Your task to perform on an android device: open sync settings in chrome Image 0: 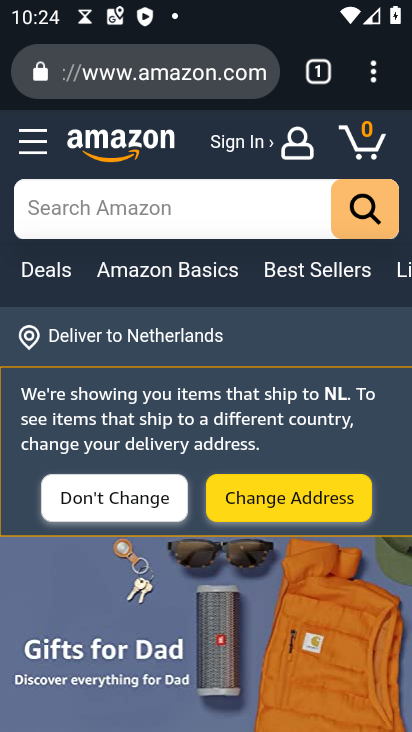
Step 0: click (379, 71)
Your task to perform on an android device: open sync settings in chrome Image 1: 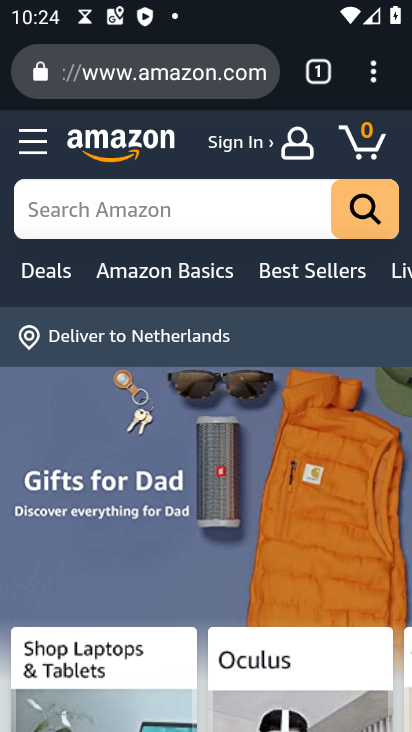
Step 1: click (379, 71)
Your task to perform on an android device: open sync settings in chrome Image 2: 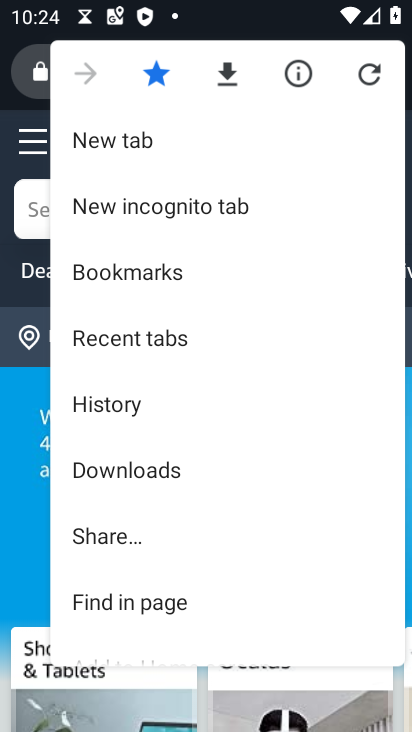
Step 2: drag from (199, 402) to (221, 324)
Your task to perform on an android device: open sync settings in chrome Image 3: 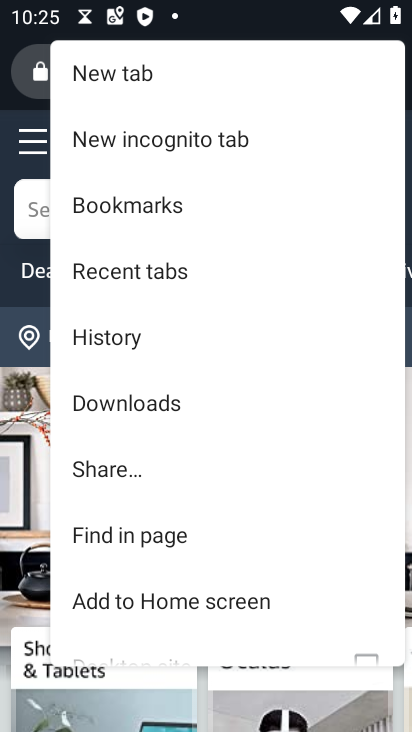
Step 3: drag from (188, 462) to (230, 398)
Your task to perform on an android device: open sync settings in chrome Image 4: 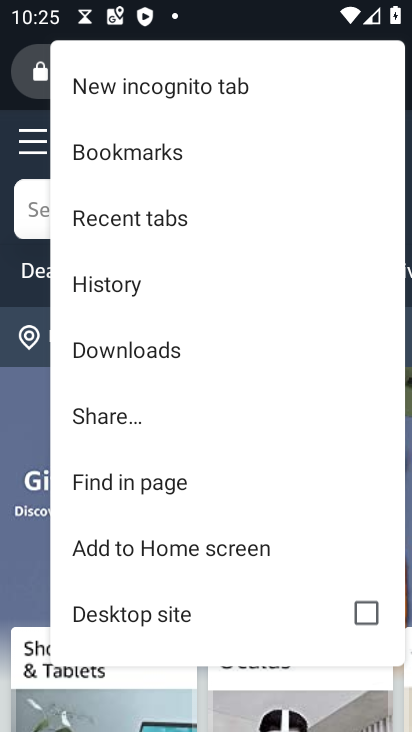
Step 4: drag from (197, 515) to (225, 407)
Your task to perform on an android device: open sync settings in chrome Image 5: 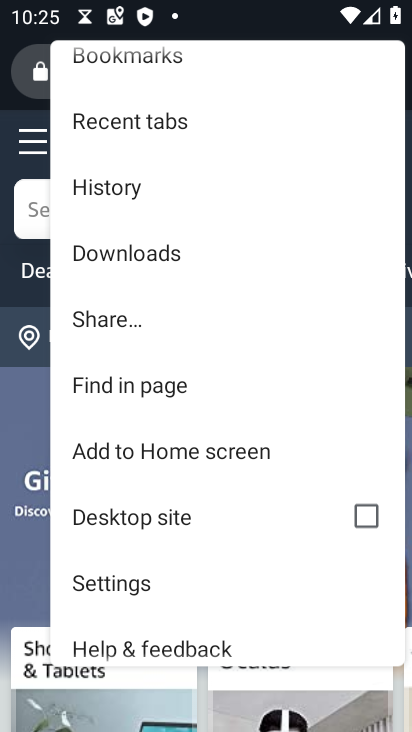
Step 5: drag from (191, 546) to (215, 424)
Your task to perform on an android device: open sync settings in chrome Image 6: 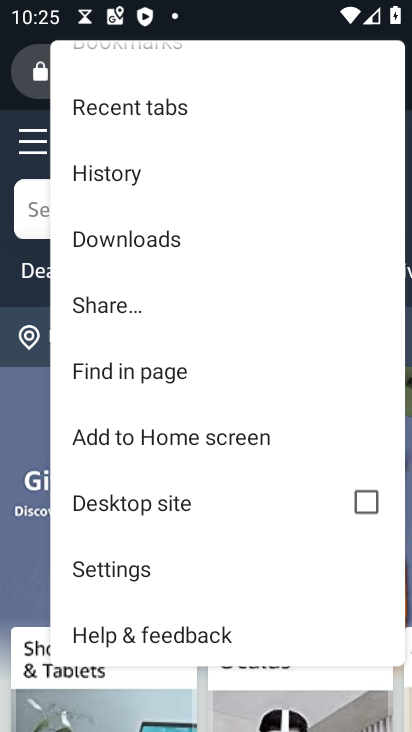
Step 6: click (118, 568)
Your task to perform on an android device: open sync settings in chrome Image 7: 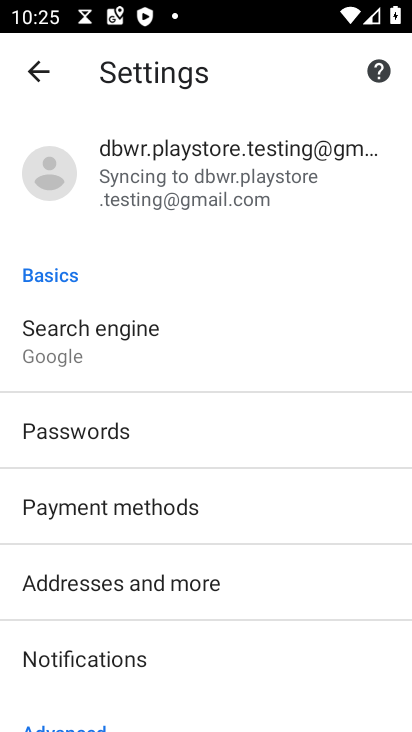
Step 7: drag from (221, 505) to (226, 407)
Your task to perform on an android device: open sync settings in chrome Image 8: 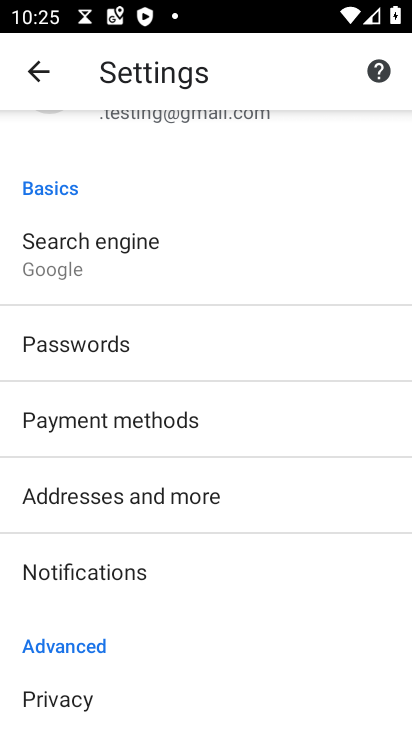
Step 8: drag from (186, 550) to (236, 447)
Your task to perform on an android device: open sync settings in chrome Image 9: 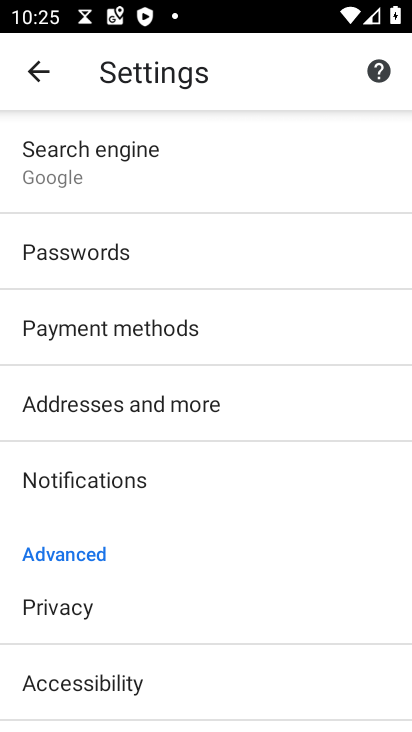
Step 9: drag from (139, 604) to (219, 442)
Your task to perform on an android device: open sync settings in chrome Image 10: 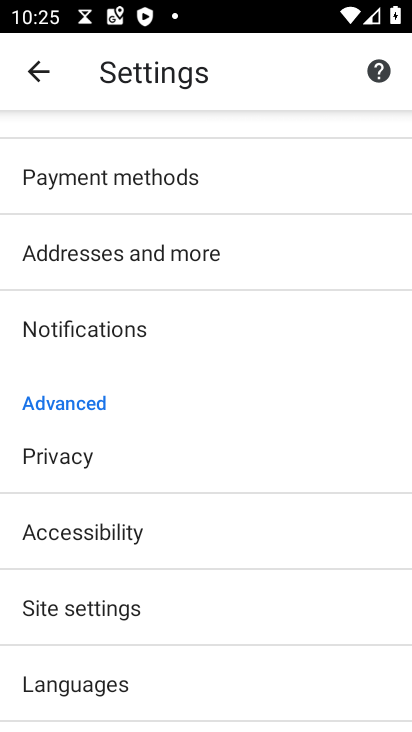
Step 10: drag from (180, 601) to (240, 503)
Your task to perform on an android device: open sync settings in chrome Image 11: 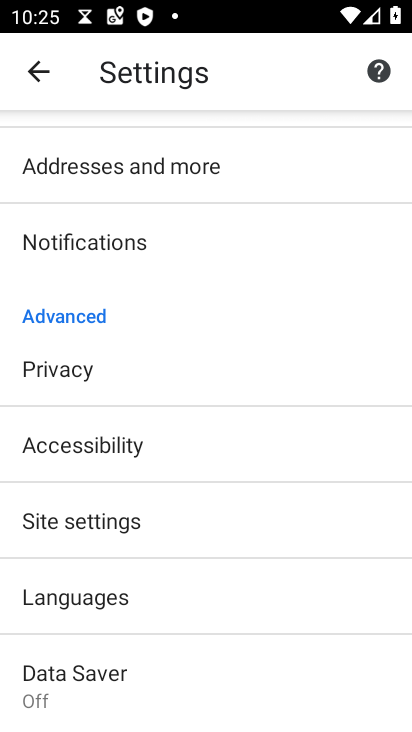
Step 11: drag from (220, 606) to (268, 507)
Your task to perform on an android device: open sync settings in chrome Image 12: 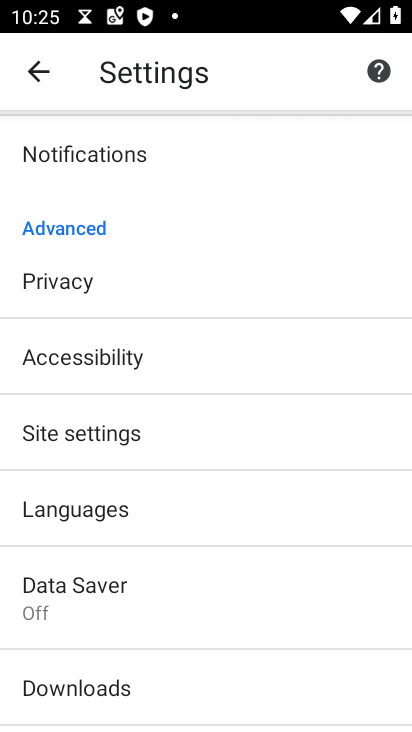
Step 12: drag from (194, 603) to (262, 503)
Your task to perform on an android device: open sync settings in chrome Image 13: 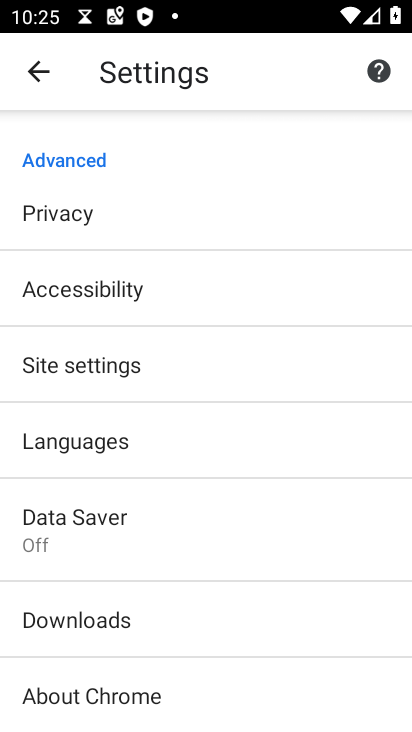
Step 13: click (124, 367)
Your task to perform on an android device: open sync settings in chrome Image 14: 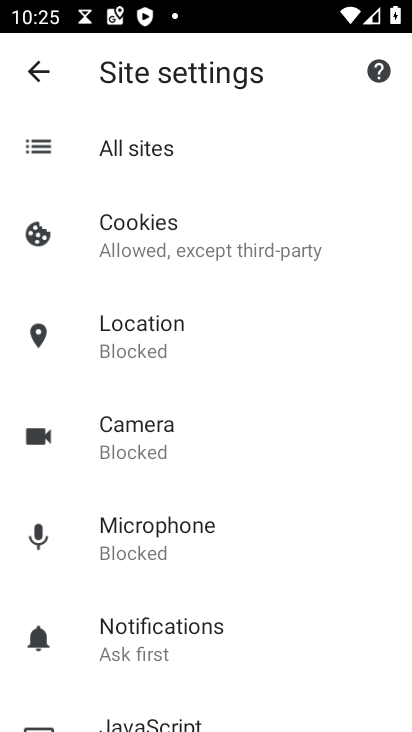
Step 14: drag from (183, 477) to (232, 376)
Your task to perform on an android device: open sync settings in chrome Image 15: 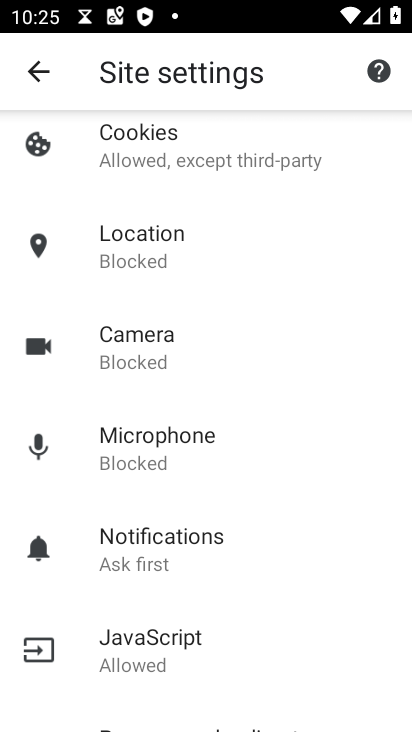
Step 15: drag from (187, 493) to (238, 393)
Your task to perform on an android device: open sync settings in chrome Image 16: 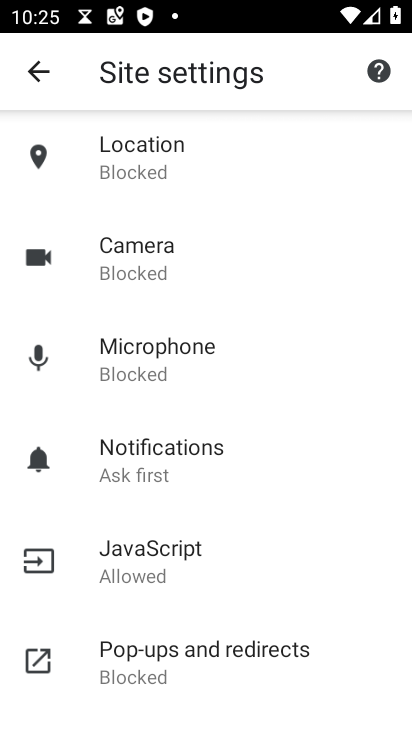
Step 16: drag from (192, 496) to (259, 364)
Your task to perform on an android device: open sync settings in chrome Image 17: 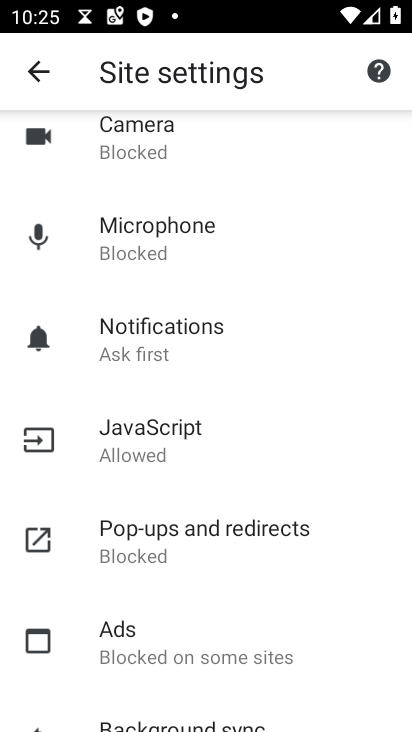
Step 17: drag from (175, 590) to (265, 441)
Your task to perform on an android device: open sync settings in chrome Image 18: 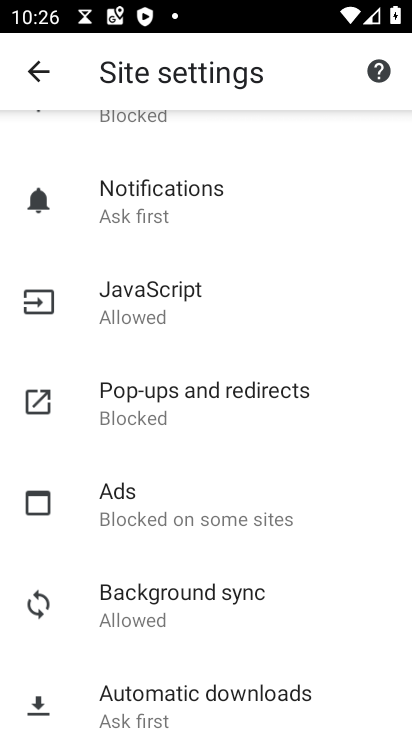
Step 18: click (251, 591)
Your task to perform on an android device: open sync settings in chrome Image 19: 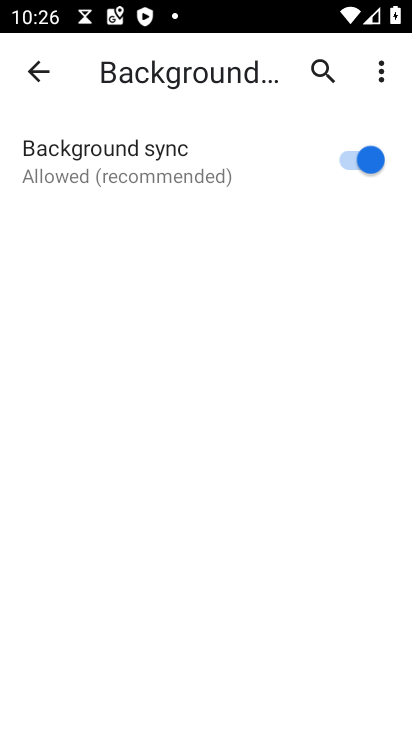
Step 19: task complete